Your task to perform on an android device: change your default location settings in chrome Image 0: 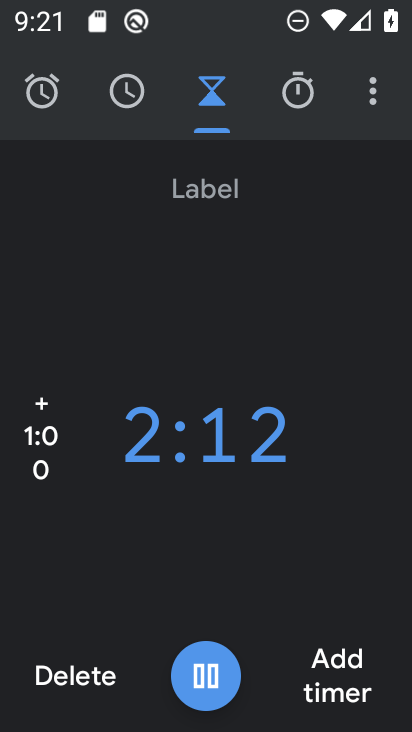
Step 0: press home button
Your task to perform on an android device: change your default location settings in chrome Image 1: 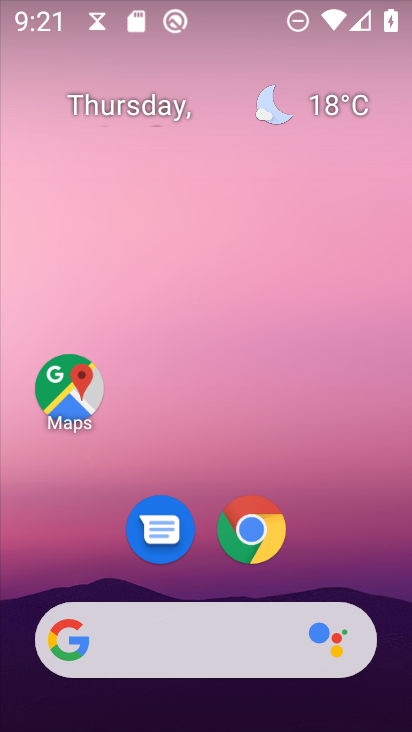
Step 1: click (263, 522)
Your task to perform on an android device: change your default location settings in chrome Image 2: 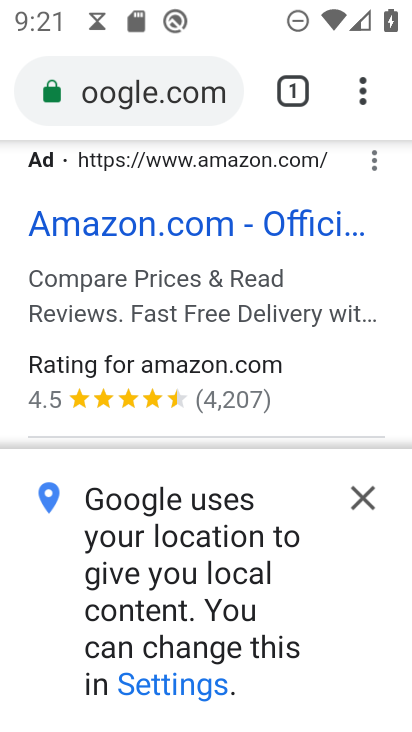
Step 2: click (365, 84)
Your task to perform on an android device: change your default location settings in chrome Image 3: 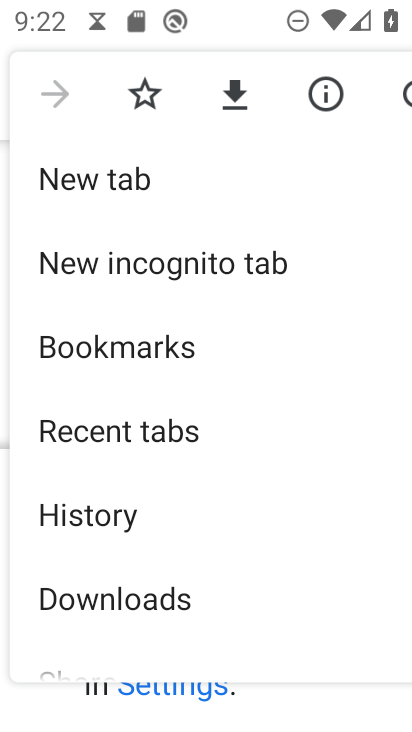
Step 3: drag from (271, 572) to (291, 92)
Your task to perform on an android device: change your default location settings in chrome Image 4: 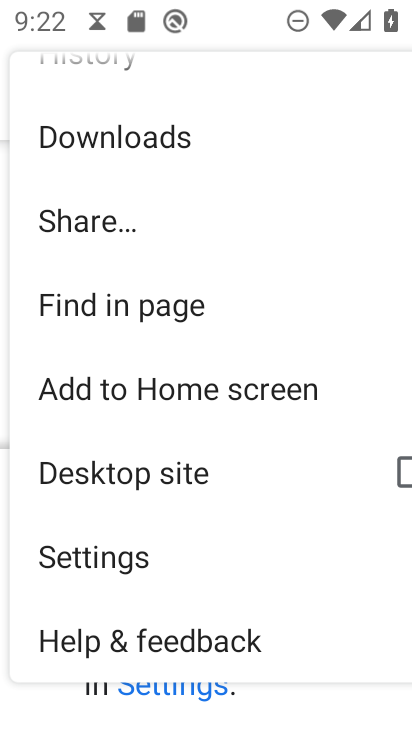
Step 4: click (108, 567)
Your task to perform on an android device: change your default location settings in chrome Image 5: 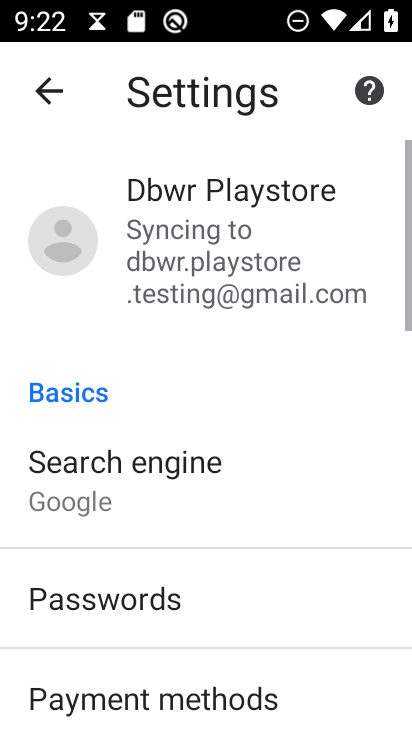
Step 5: drag from (295, 699) to (305, 262)
Your task to perform on an android device: change your default location settings in chrome Image 6: 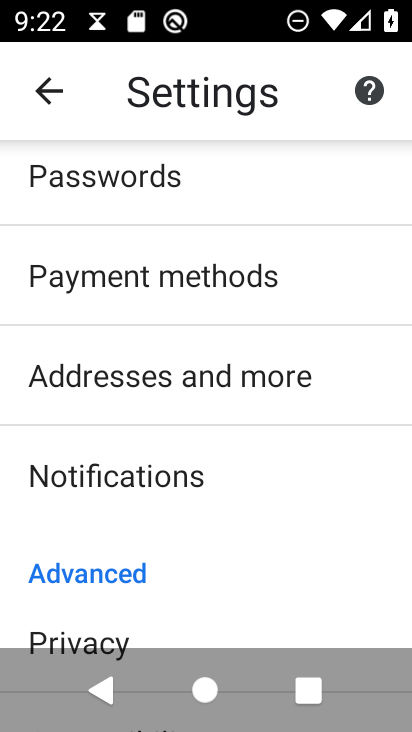
Step 6: drag from (233, 608) to (243, 262)
Your task to perform on an android device: change your default location settings in chrome Image 7: 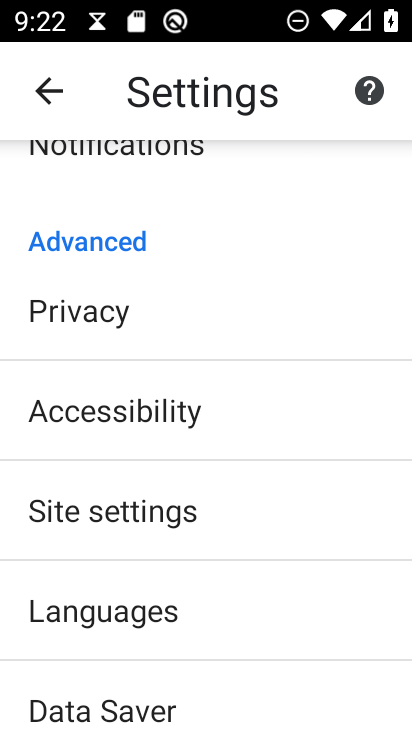
Step 7: click (105, 520)
Your task to perform on an android device: change your default location settings in chrome Image 8: 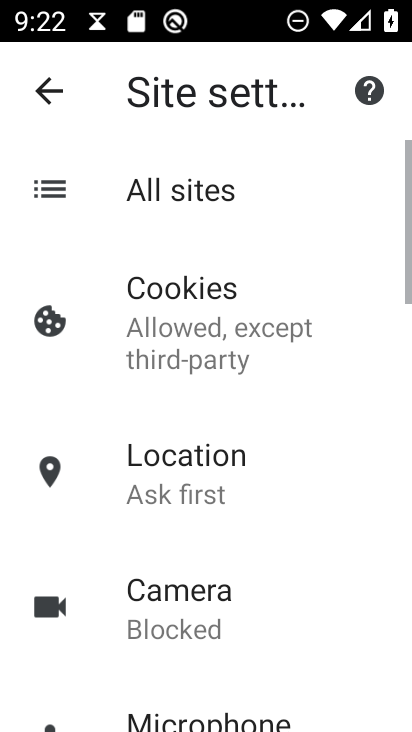
Step 8: click (170, 448)
Your task to perform on an android device: change your default location settings in chrome Image 9: 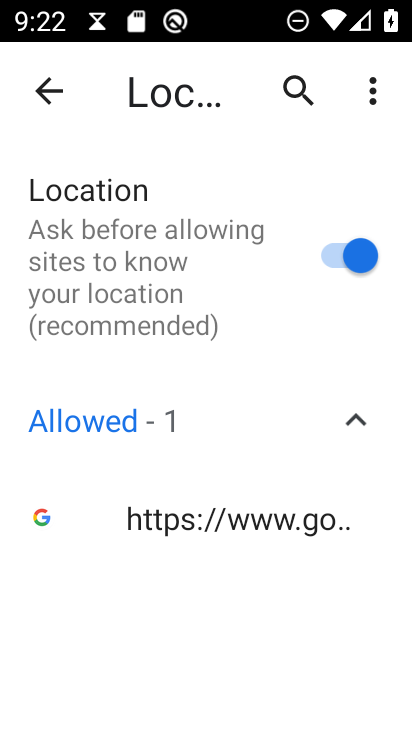
Step 9: task complete